Your task to perform on an android device: turn notification dots off Image 0: 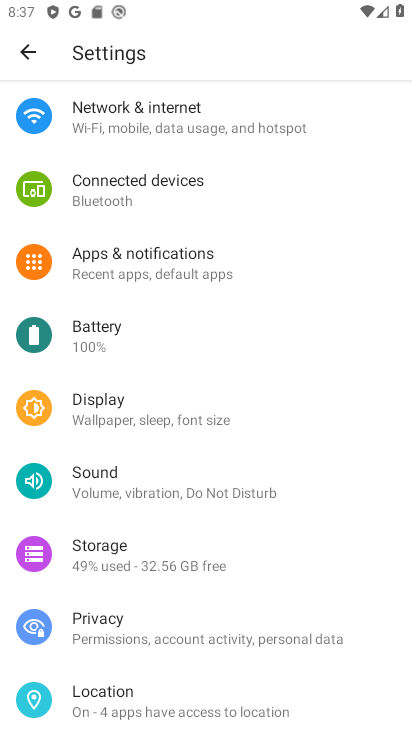
Step 0: press home button
Your task to perform on an android device: turn notification dots off Image 1: 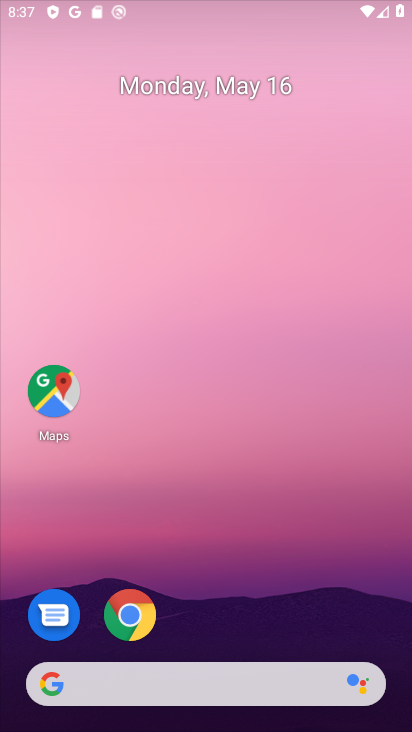
Step 1: drag from (11, 612) to (203, 218)
Your task to perform on an android device: turn notification dots off Image 2: 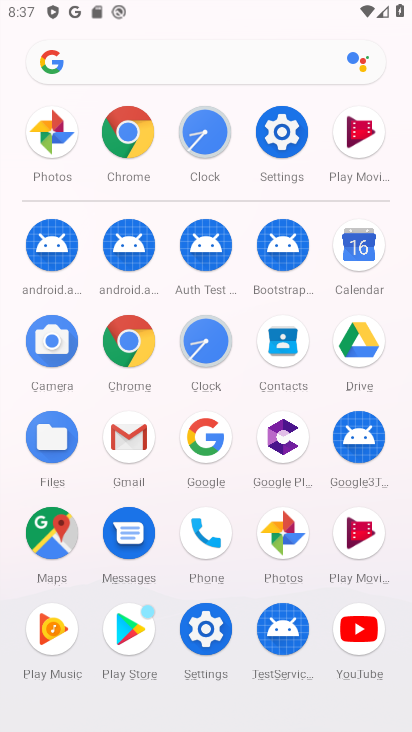
Step 2: click (290, 133)
Your task to perform on an android device: turn notification dots off Image 3: 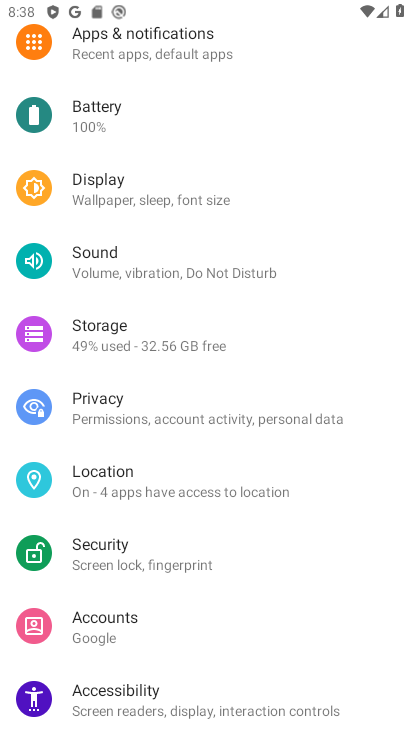
Step 3: click (156, 42)
Your task to perform on an android device: turn notification dots off Image 4: 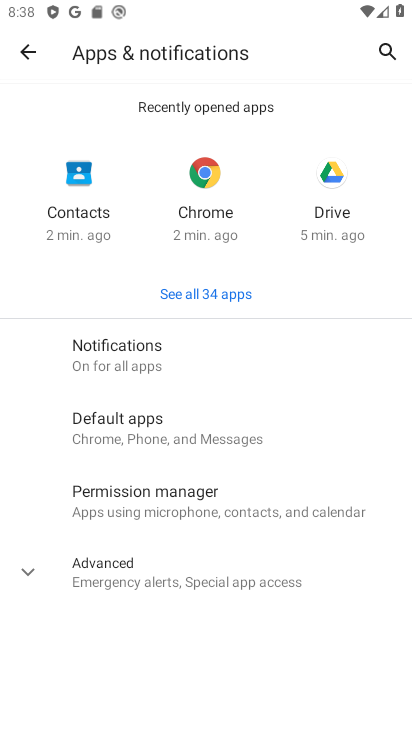
Step 4: click (117, 359)
Your task to perform on an android device: turn notification dots off Image 5: 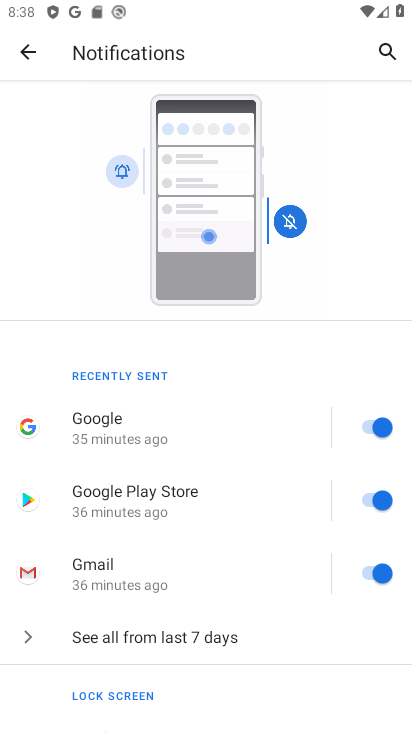
Step 5: drag from (161, 688) to (245, 219)
Your task to perform on an android device: turn notification dots off Image 6: 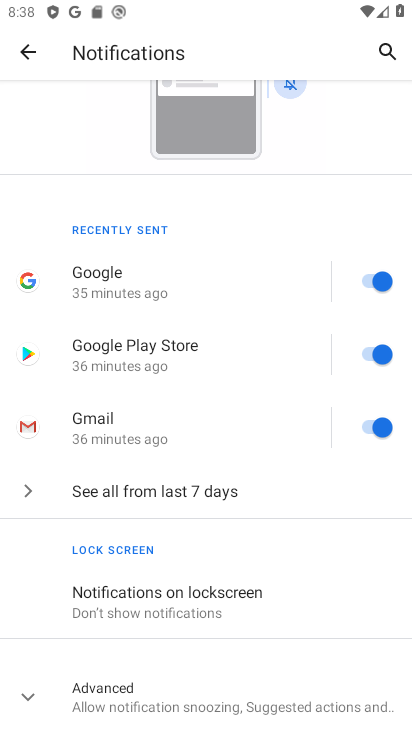
Step 6: click (84, 698)
Your task to perform on an android device: turn notification dots off Image 7: 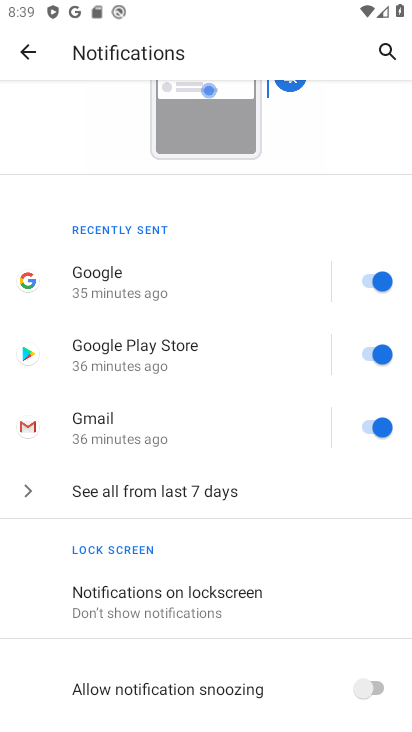
Step 7: drag from (130, 675) to (223, 333)
Your task to perform on an android device: turn notification dots off Image 8: 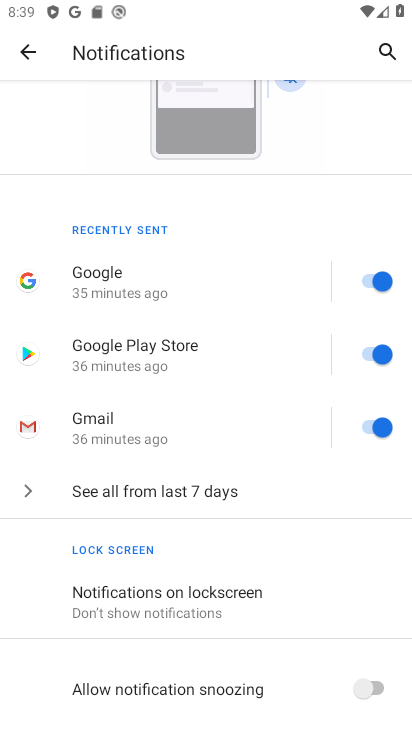
Step 8: drag from (64, 516) to (214, 143)
Your task to perform on an android device: turn notification dots off Image 9: 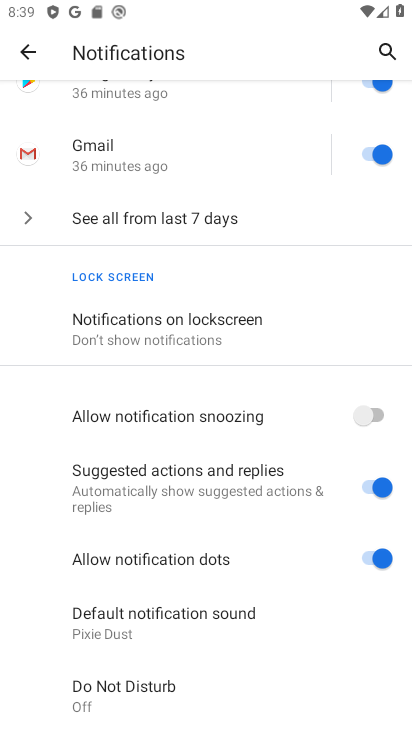
Step 9: click (388, 556)
Your task to perform on an android device: turn notification dots off Image 10: 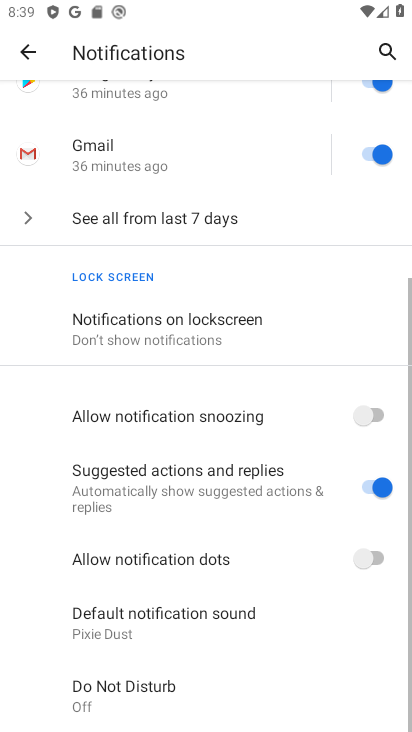
Step 10: task complete